Your task to perform on an android device: Show me popular videos on Youtube Image 0: 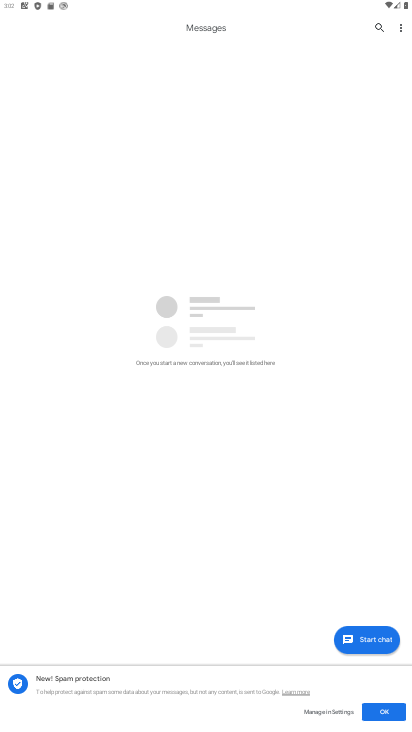
Step 0: press home button
Your task to perform on an android device: Show me popular videos on Youtube Image 1: 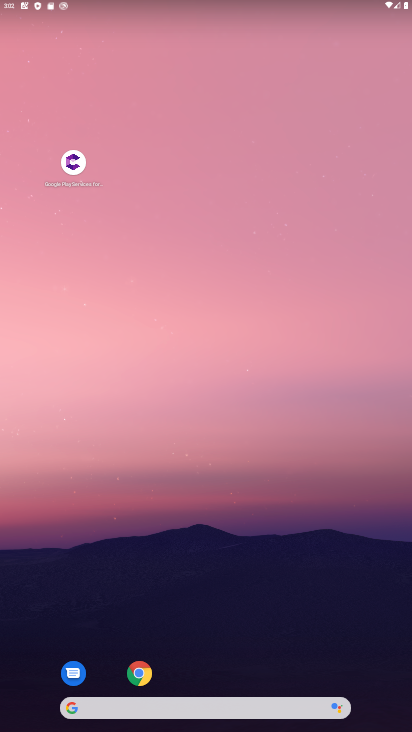
Step 1: drag from (189, 702) to (277, 37)
Your task to perform on an android device: Show me popular videos on Youtube Image 2: 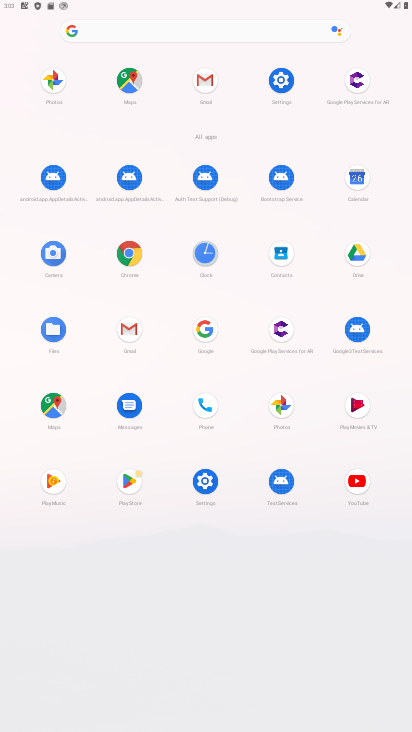
Step 2: click (358, 478)
Your task to perform on an android device: Show me popular videos on Youtube Image 3: 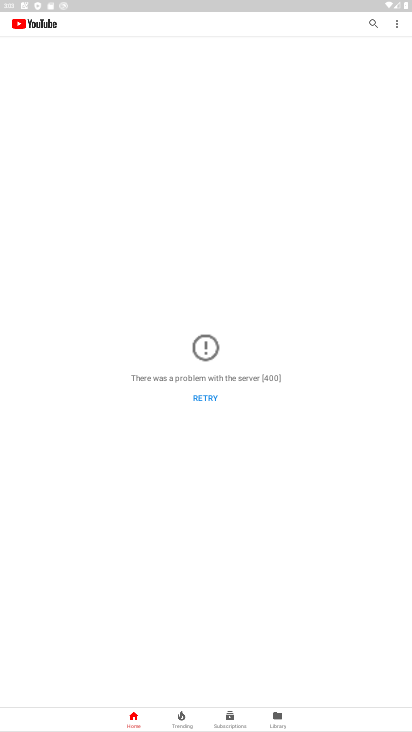
Step 3: click (201, 404)
Your task to perform on an android device: Show me popular videos on Youtube Image 4: 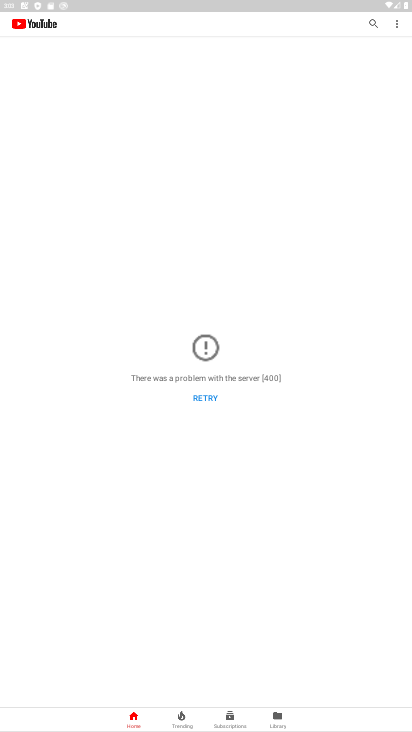
Step 4: click (204, 397)
Your task to perform on an android device: Show me popular videos on Youtube Image 5: 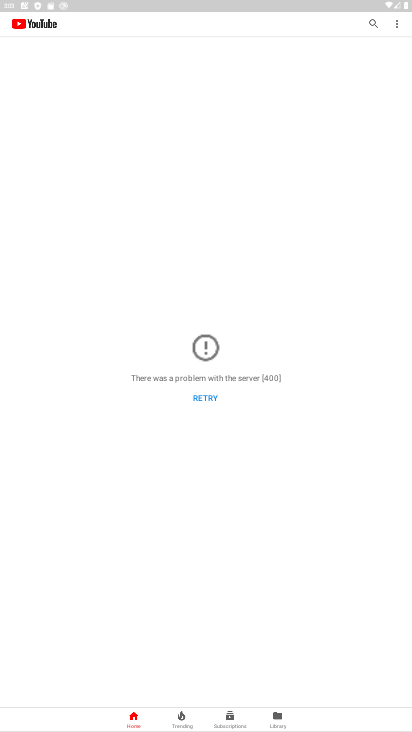
Step 5: click (204, 397)
Your task to perform on an android device: Show me popular videos on Youtube Image 6: 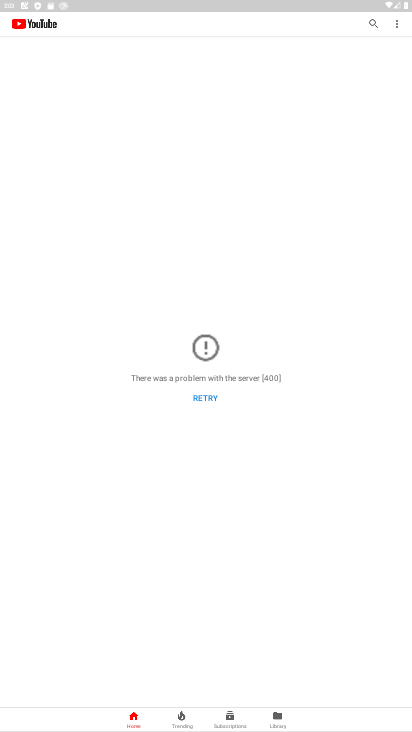
Step 6: click (375, 23)
Your task to perform on an android device: Show me popular videos on Youtube Image 7: 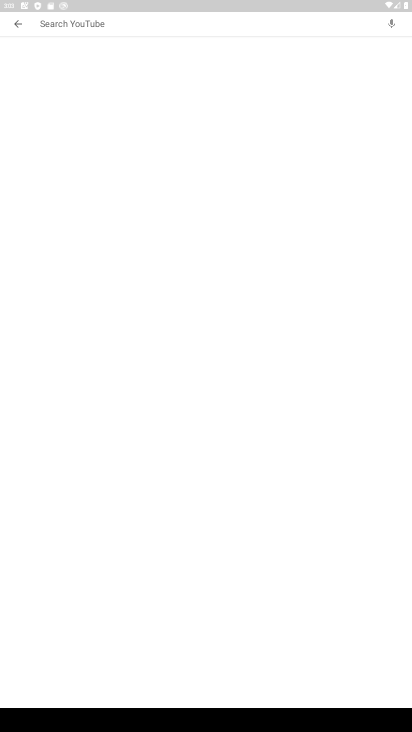
Step 7: type "popular video"
Your task to perform on an android device: Show me popular videos on Youtube Image 8: 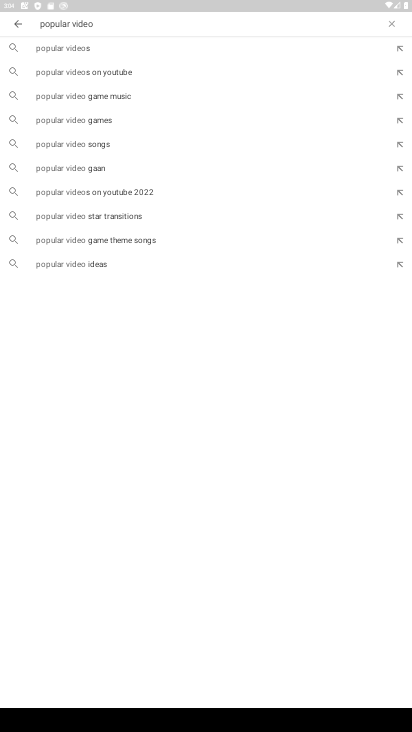
Step 8: click (69, 53)
Your task to perform on an android device: Show me popular videos on Youtube Image 9: 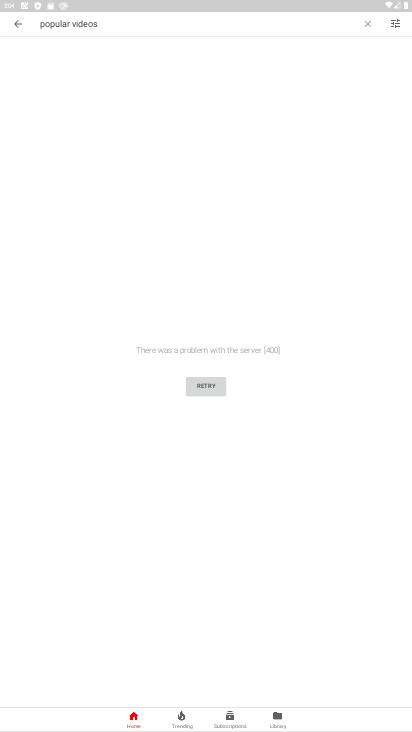
Step 9: click (206, 387)
Your task to perform on an android device: Show me popular videos on Youtube Image 10: 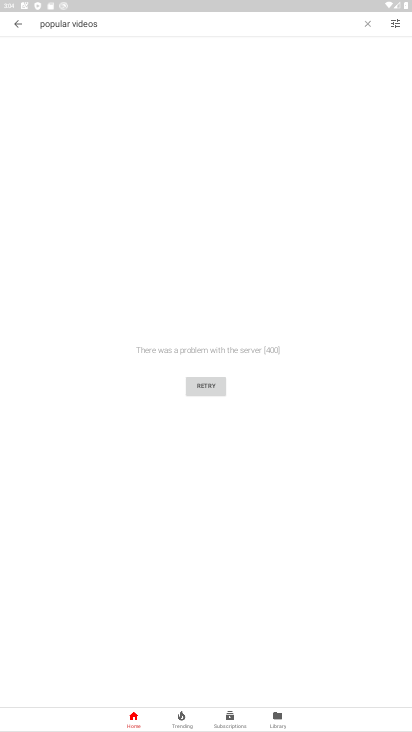
Step 10: task complete